Your task to perform on an android device: add a contact Image 0: 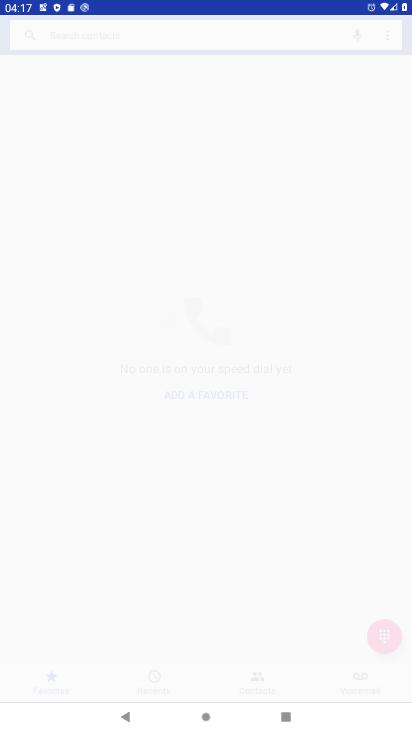
Step 0: click (137, 632)
Your task to perform on an android device: add a contact Image 1: 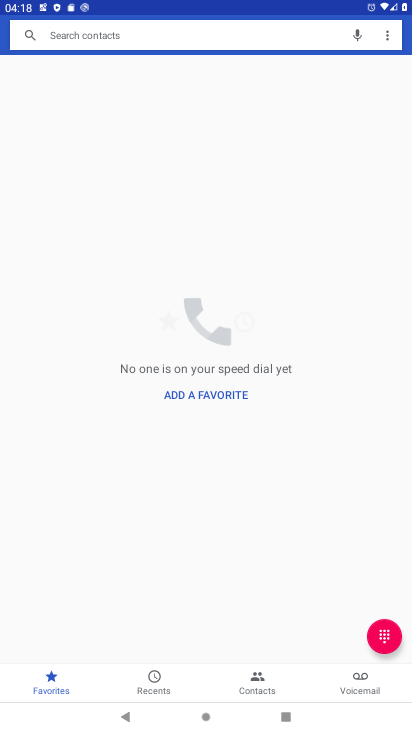
Step 1: press home button
Your task to perform on an android device: add a contact Image 2: 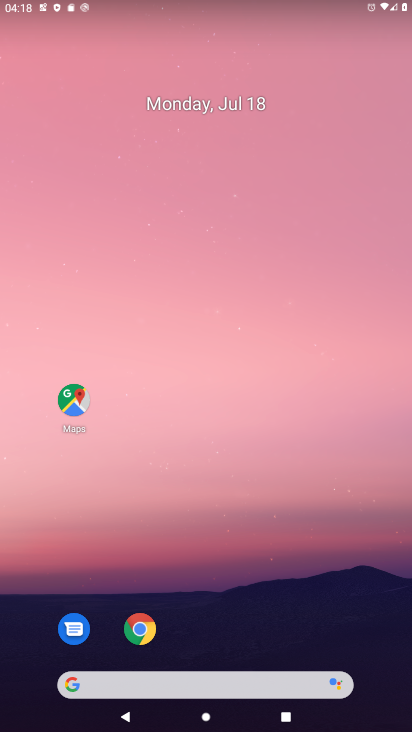
Step 2: drag from (355, 586) to (311, 107)
Your task to perform on an android device: add a contact Image 3: 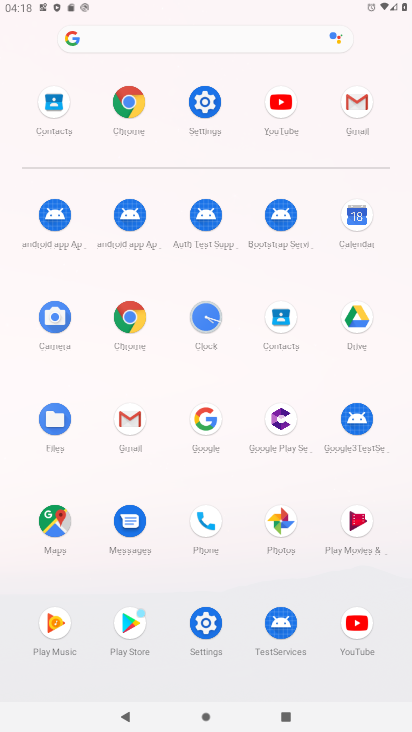
Step 3: click (280, 314)
Your task to perform on an android device: add a contact Image 4: 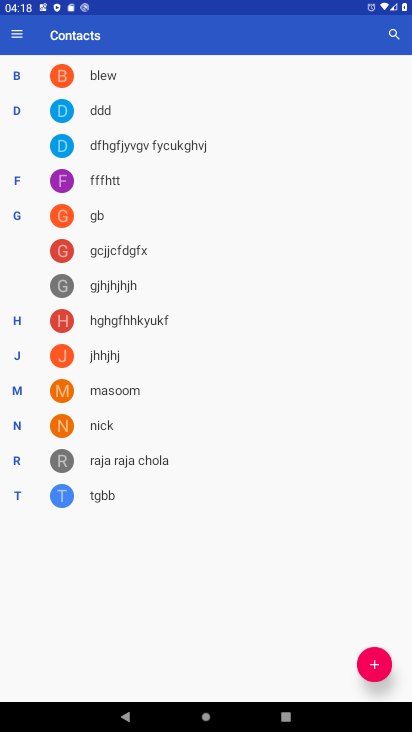
Step 4: click (365, 662)
Your task to perform on an android device: add a contact Image 5: 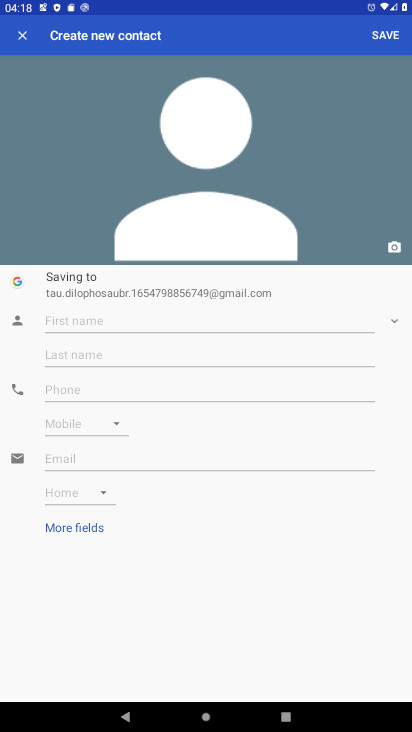
Step 5: click (179, 349)
Your task to perform on an android device: add a contact Image 6: 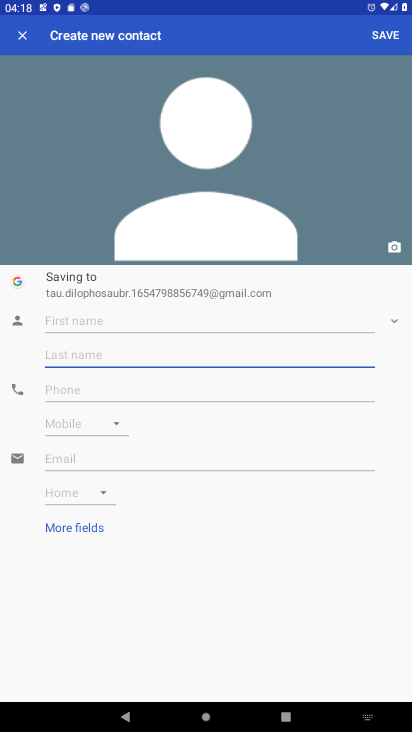
Step 6: click (154, 326)
Your task to perform on an android device: add a contact Image 7: 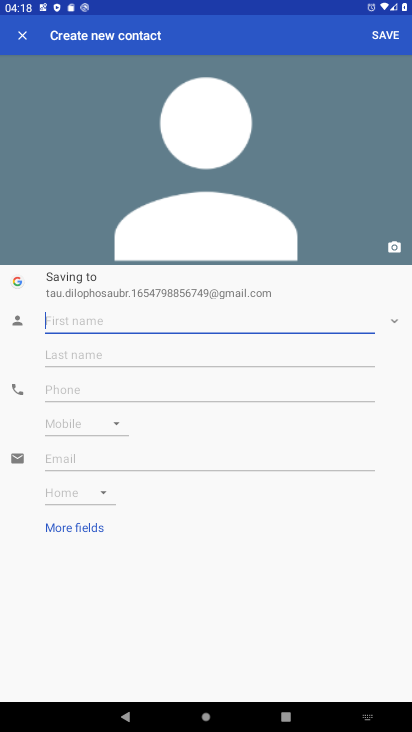
Step 7: type "trcgvfyvhgvug"
Your task to perform on an android device: add a contact Image 8: 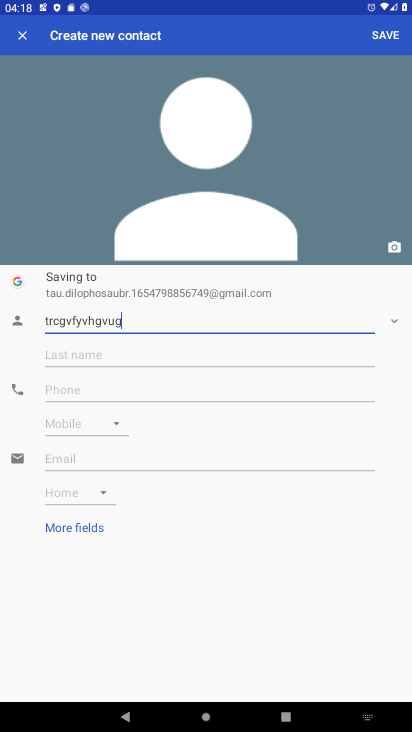
Step 8: click (70, 360)
Your task to perform on an android device: add a contact Image 9: 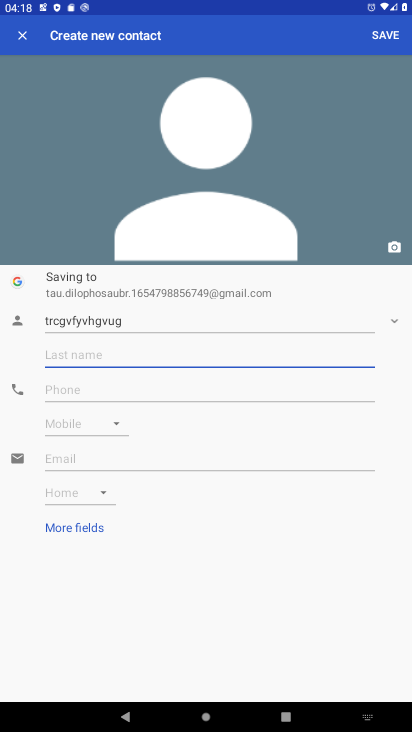
Step 9: type "dchgy"
Your task to perform on an android device: add a contact Image 10: 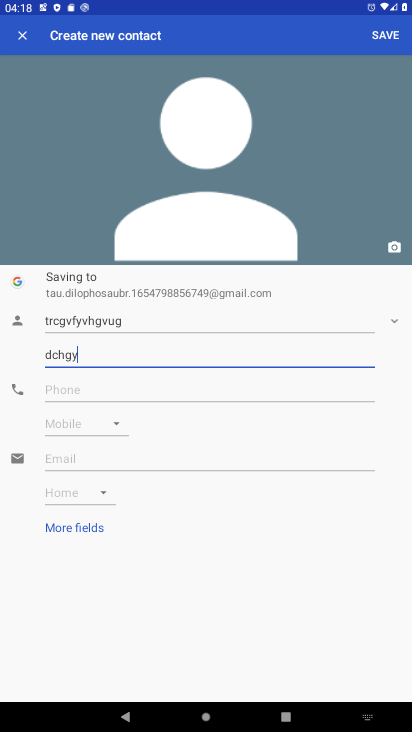
Step 10: click (80, 390)
Your task to perform on an android device: add a contact Image 11: 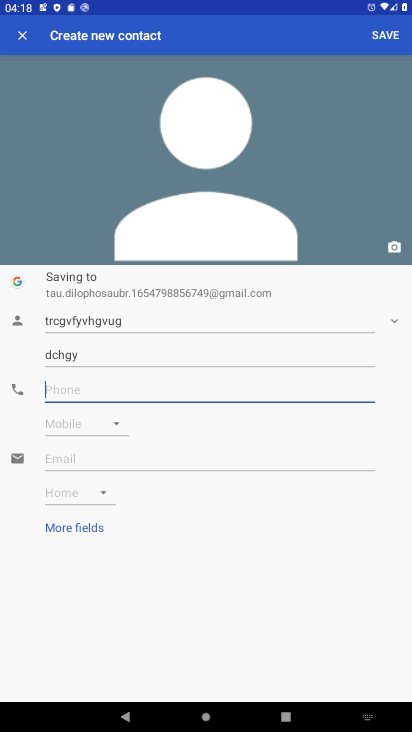
Step 11: type "56456653465"
Your task to perform on an android device: add a contact Image 12: 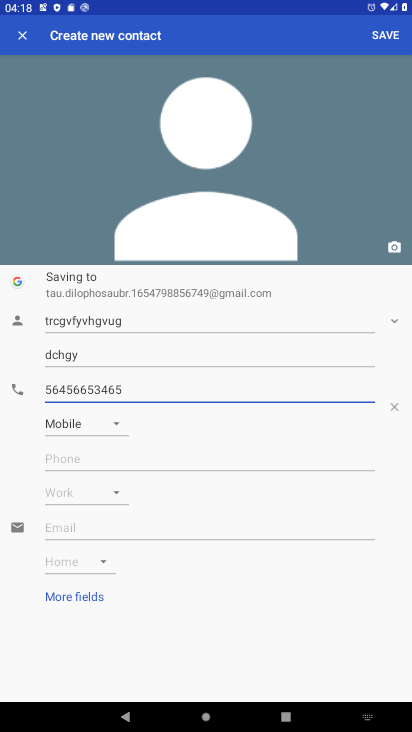
Step 12: click (379, 29)
Your task to perform on an android device: add a contact Image 13: 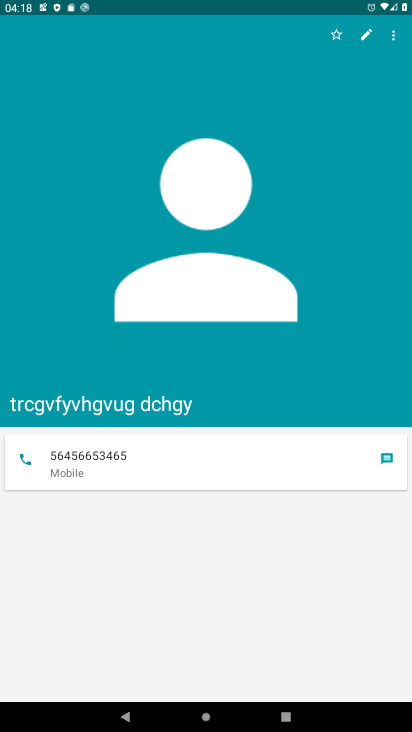
Step 13: task complete